Your task to perform on an android device: What is the news today? Image 0: 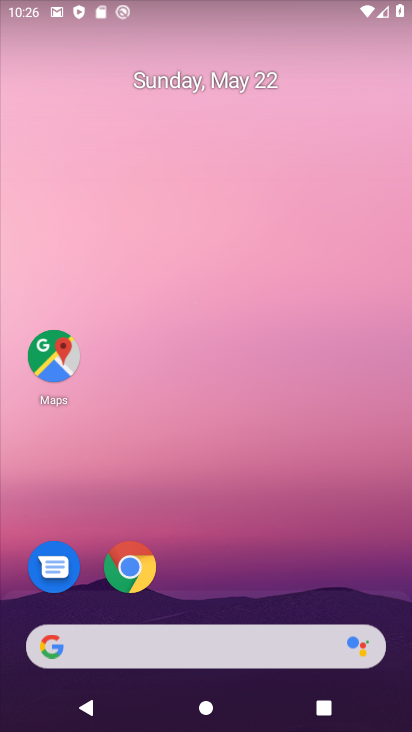
Step 0: drag from (247, 477) to (2, 50)
Your task to perform on an android device: What is the news today? Image 1: 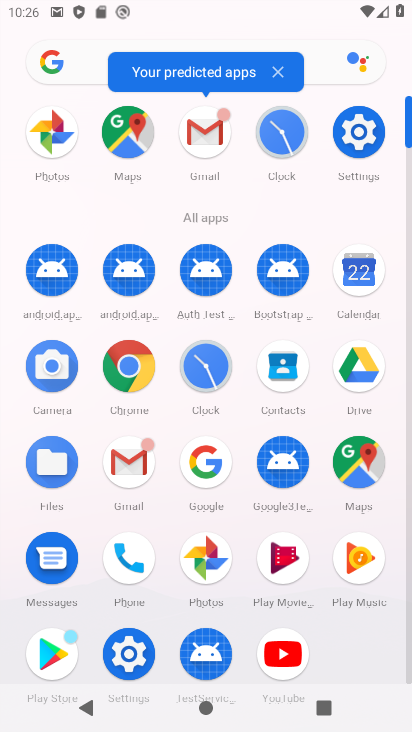
Step 1: drag from (13, 494) to (17, 176)
Your task to perform on an android device: What is the news today? Image 2: 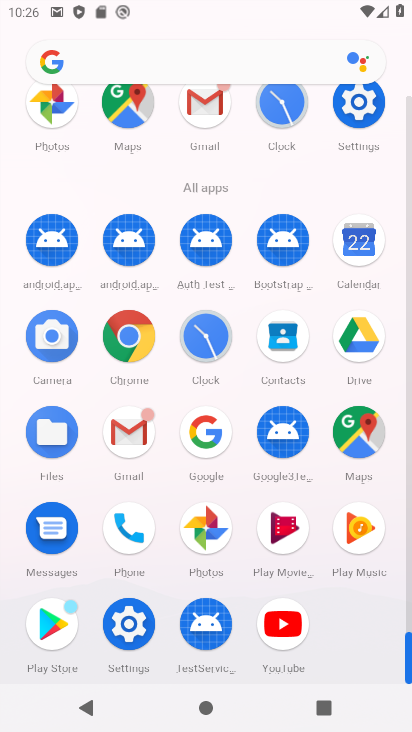
Step 2: click (125, 329)
Your task to perform on an android device: What is the news today? Image 3: 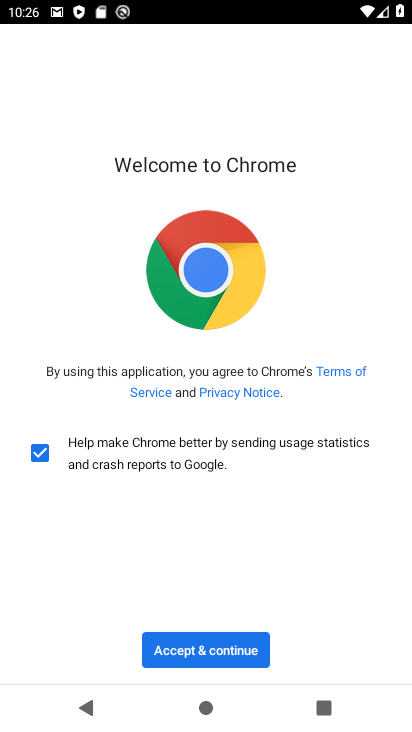
Step 3: click (196, 639)
Your task to perform on an android device: What is the news today? Image 4: 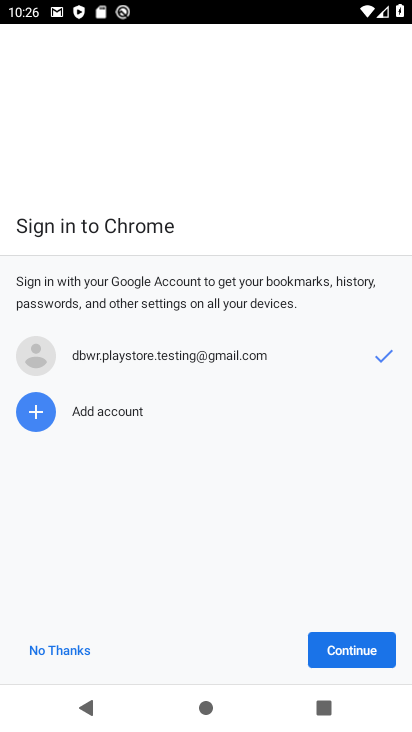
Step 4: click (364, 639)
Your task to perform on an android device: What is the news today? Image 5: 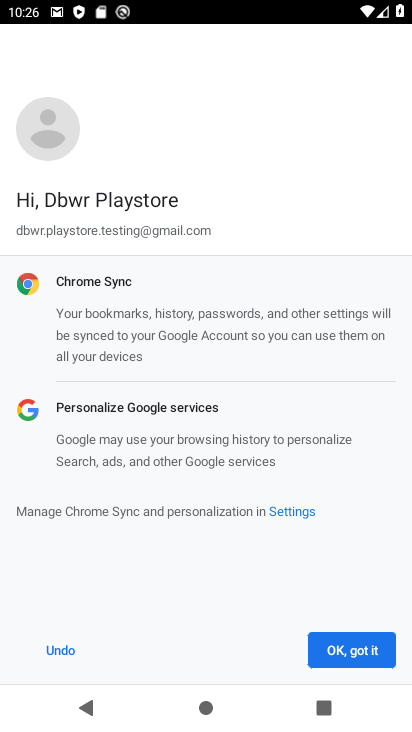
Step 5: click (372, 649)
Your task to perform on an android device: What is the news today? Image 6: 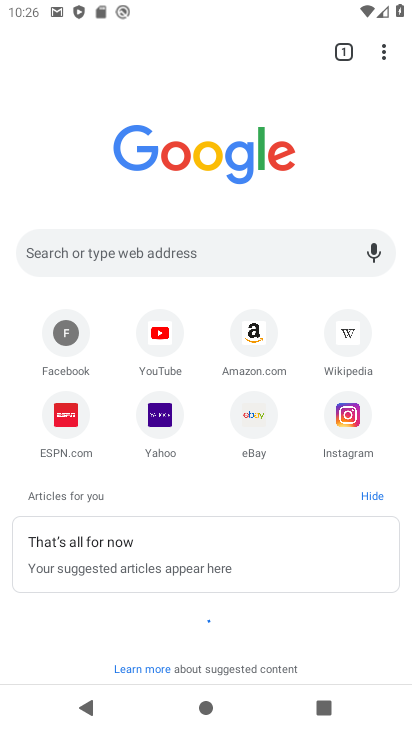
Step 6: click (227, 246)
Your task to perform on an android device: What is the news today? Image 7: 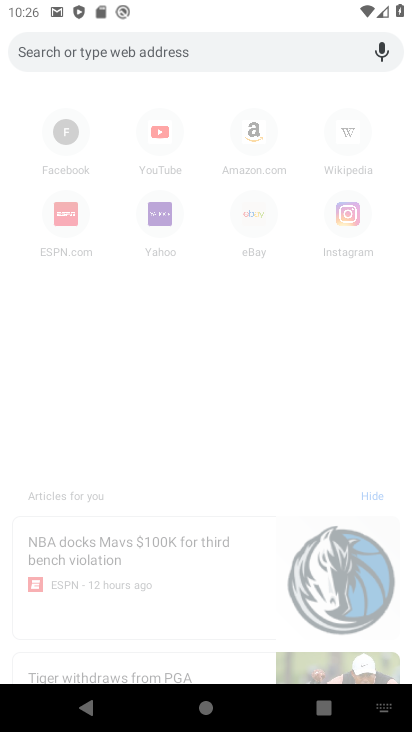
Step 7: type "What is the news today?"
Your task to perform on an android device: What is the news today? Image 8: 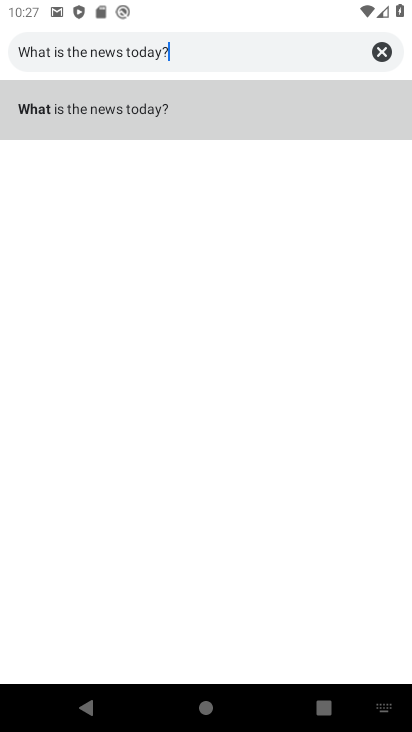
Step 8: type ""
Your task to perform on an android device: What is the news today? Image 9: 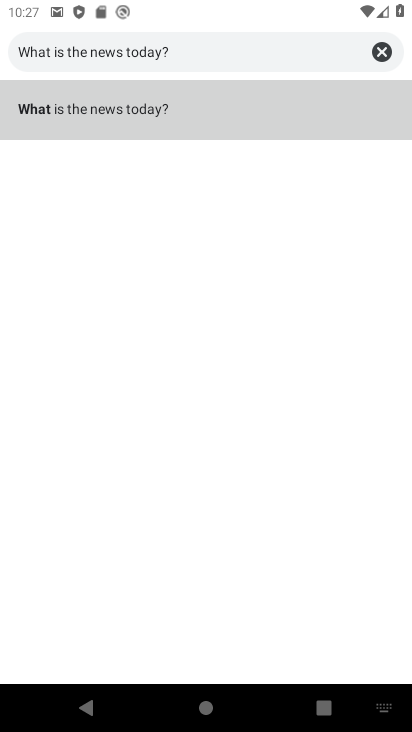
Step 9: click (110, 92)
Your task to perform on an android device: What is the news today? Image 10: 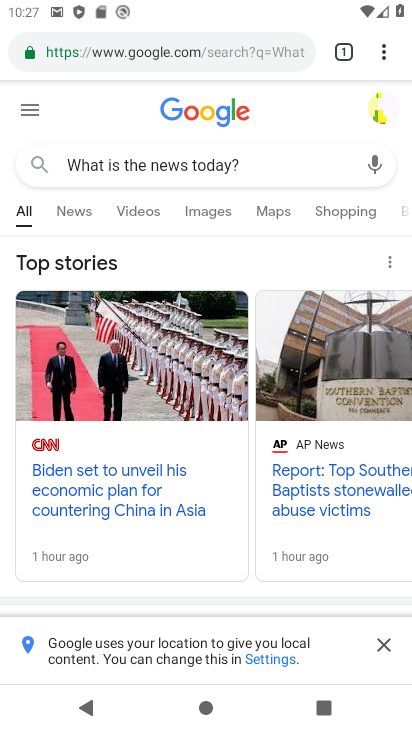
Step 10: task complete